Your task to perform on an android device: Open CNN.com Image 0: 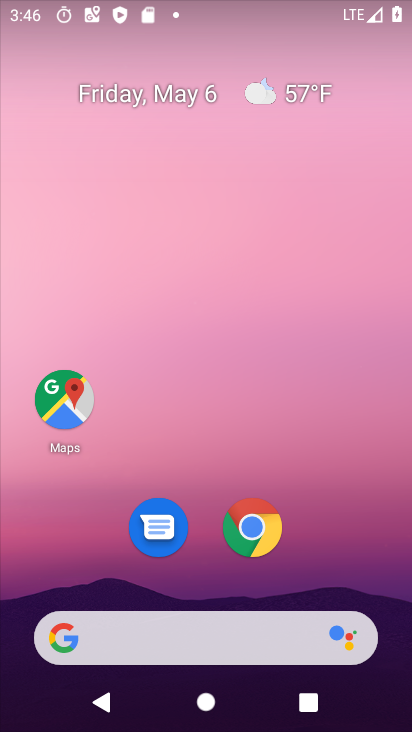
Step 0: click (260, 542)
Your task to perform on an android device: Open CNN.com Image 1: 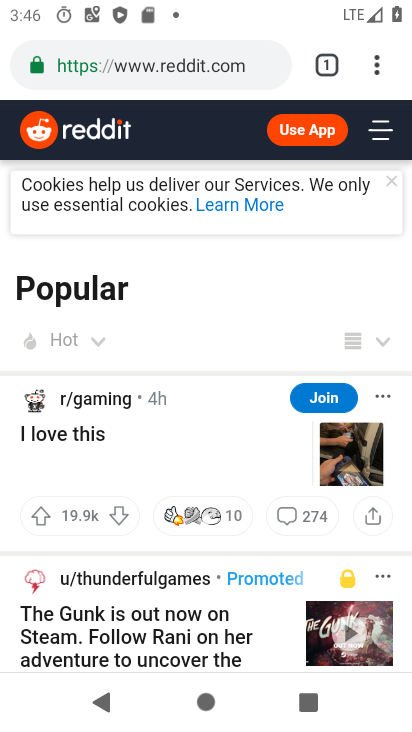
Step 1: click (184, 55)
Your task to perform on an android device: Open CNN.com Image 2: 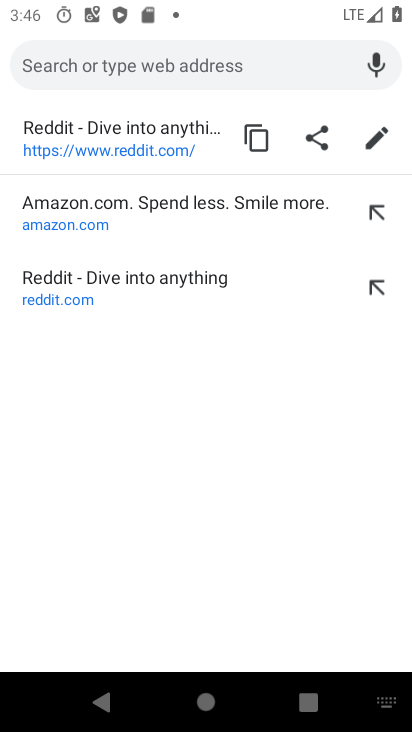
Step 2: type "www.cnn.com"
Your task to perform on an android device: Open CNN.com Image 3: 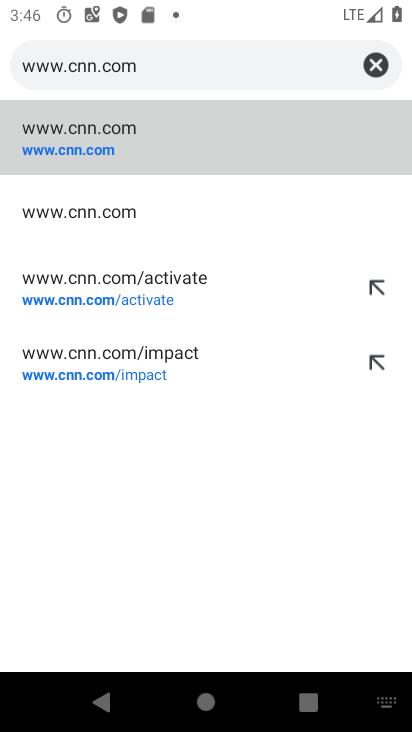
Step 3: click (97, 145)
Your task to perform on an android device: Open CNN.com Image 4: 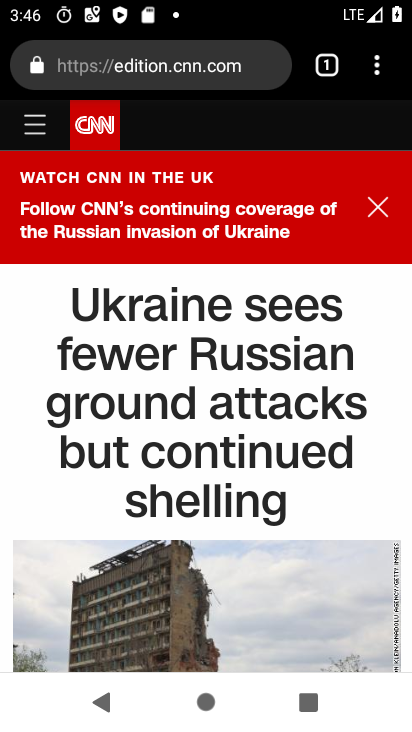
Step 4: task complete